Your task to perform on an android device: toggle notifications settings in the gmail app Image 0: 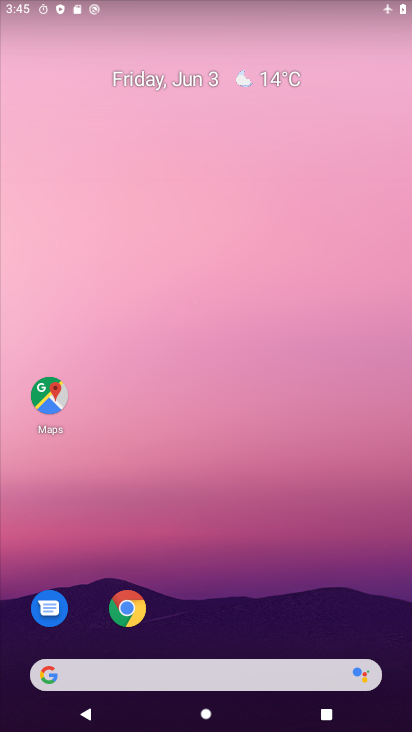
Step 0: drag from (199, 659) to (181, 257)
Your task to perform on an android device: toggle notifications settings in the gmail app Image 1: 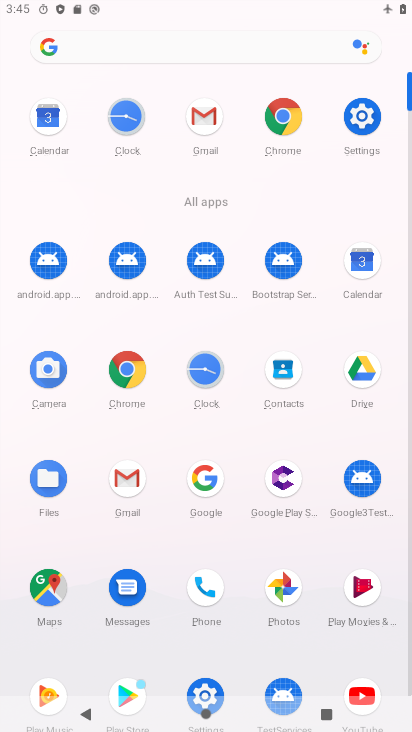
Step 1: click (210, 127)
Your task to perform on an android device: toggle notifications settings in the gmail app Image 2: 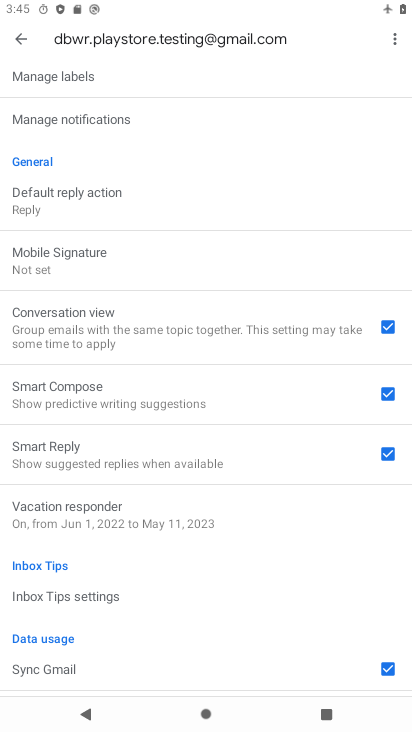
Step 2: click (53, 116)
Your task to perform on an android device: toggle notifications settings in the gmail app Image 3: 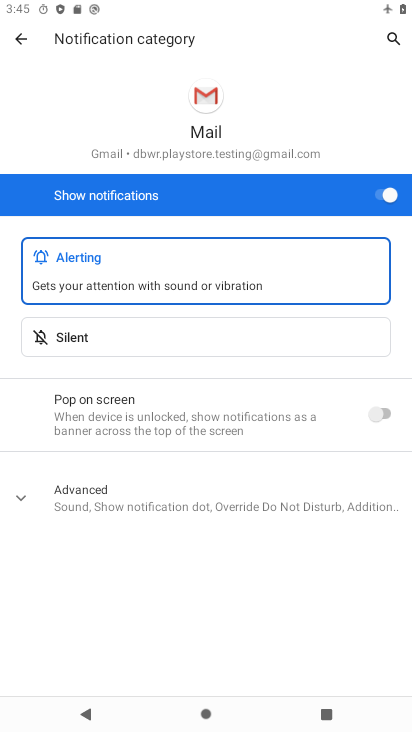
Step 3: click (385, 192)
Your task to perform on an android device: toggle notifications settings in the gmail app Image 4: 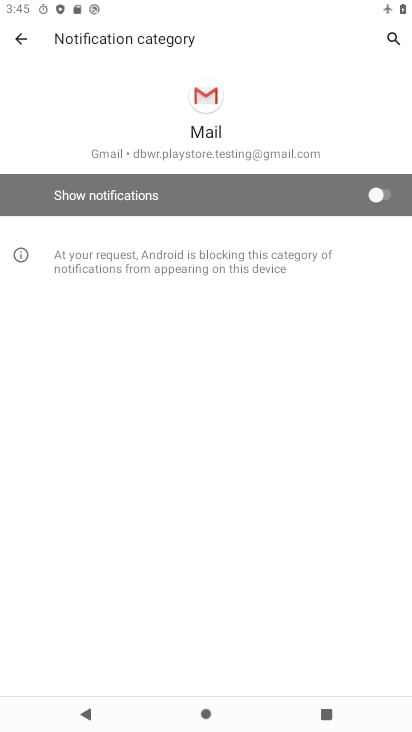
Step 4: task complete